Your task to perform on an android device: change keyboard looks Image 0: 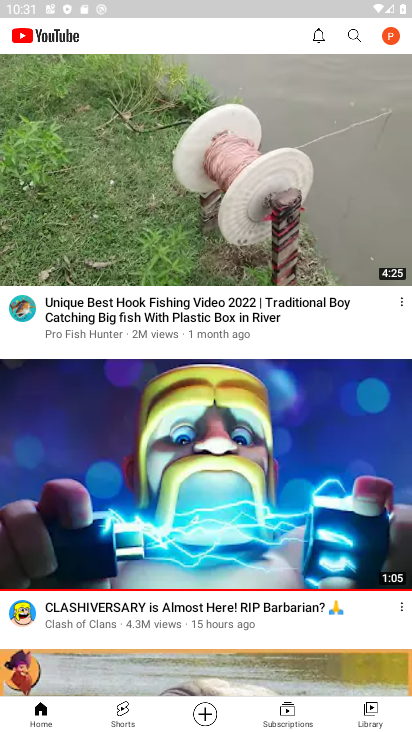
Step 0: press home button
Your task to perform on an android device: change keyboard looks Image 1: 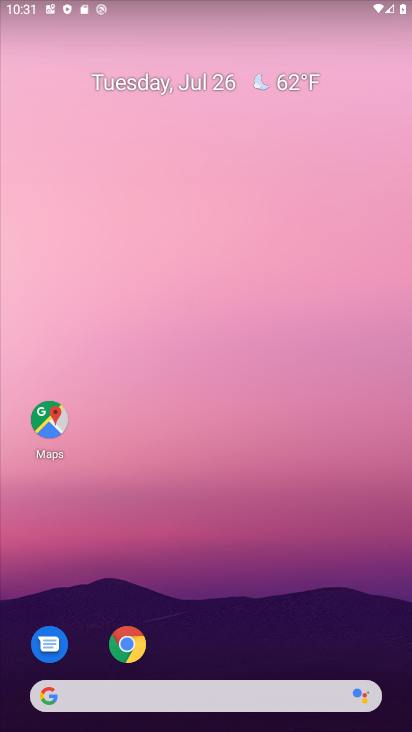
Step 1: drag from (294, 582) to (254, 169)
Your task to perform on an android device: change keyboard looks Image 2: 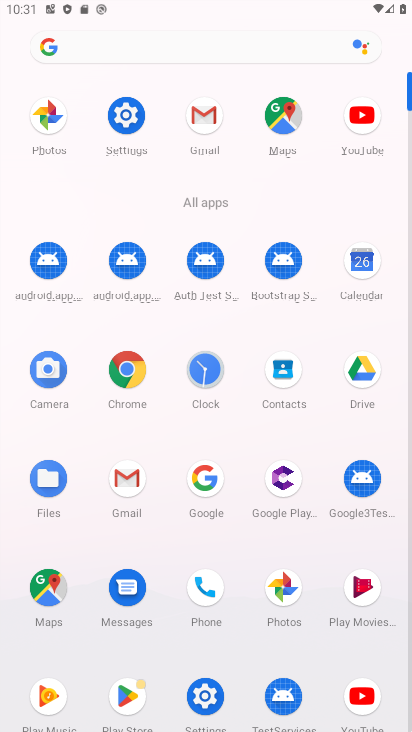
Step 2: click (204, 690)
Your task to perform on an android device: change keyboard looks Image 3: 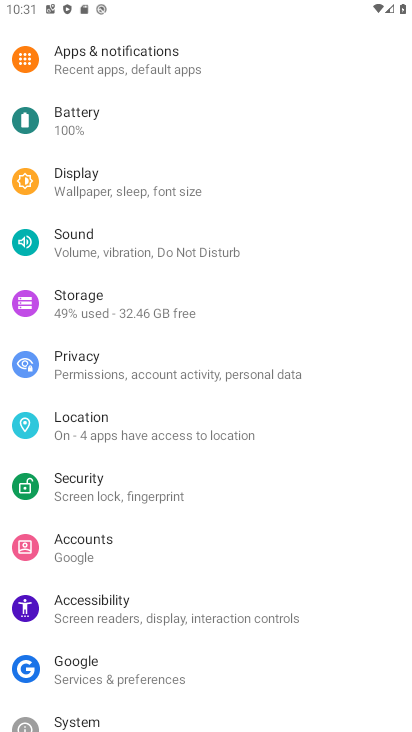
Step 3: drag from (169, 677) to (231, 321)
Your task to perform on an android device: change keyboard looks Image 4: 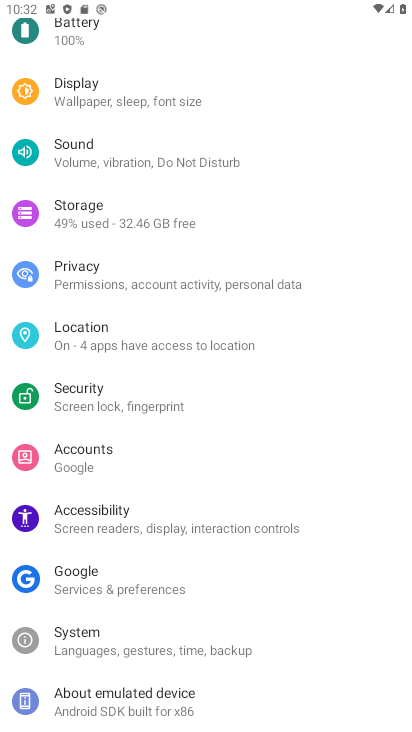
Step 4: click (115, 701)
Your task to perform on an android device: change keyboard looks Image 5: 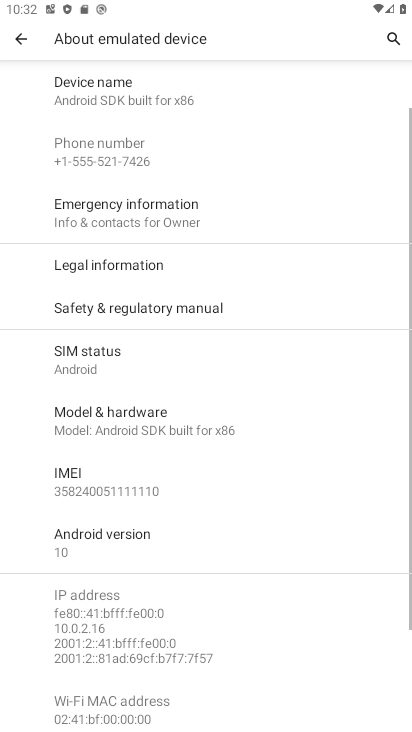
Step 5: click (16, 42)
Your task to perform on an android device: change keyboard looks Image 6: 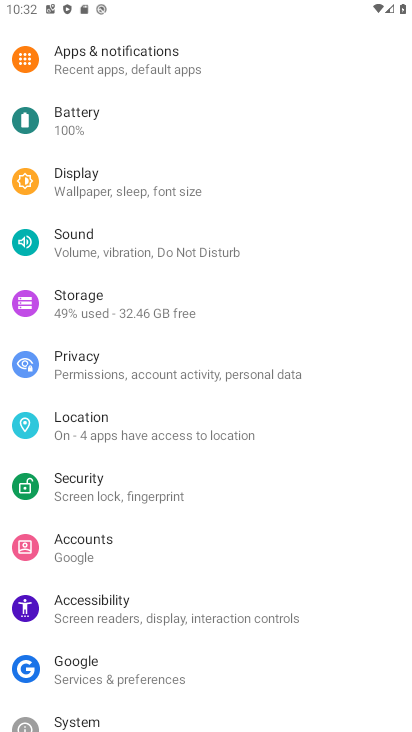
Step 6: click (101, 720)
Your task to perform on an android device: change keyboard looks Image 7: 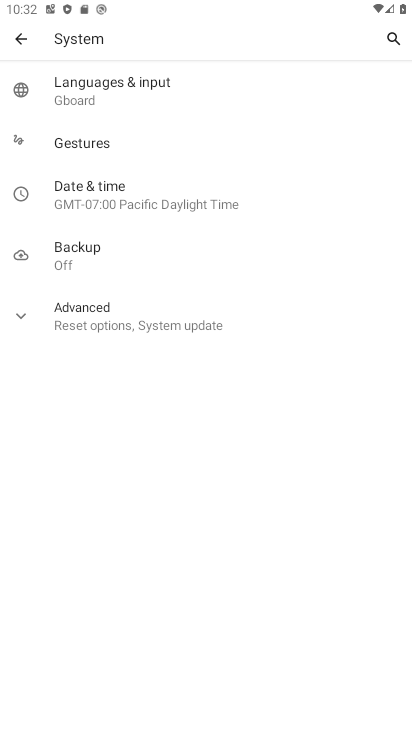
Step 7: click (107, 93)
Your task to perform on an android device: change keyboard looks Image 8: 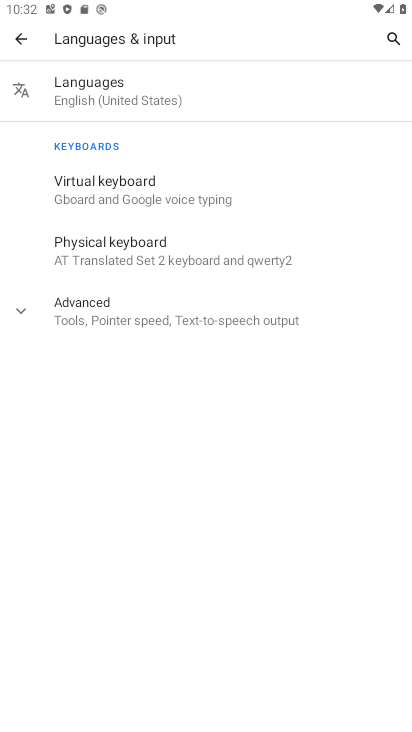
Step 8: click (120, 190)
Your task to perform on an android device: change keyboard looks Image 9: 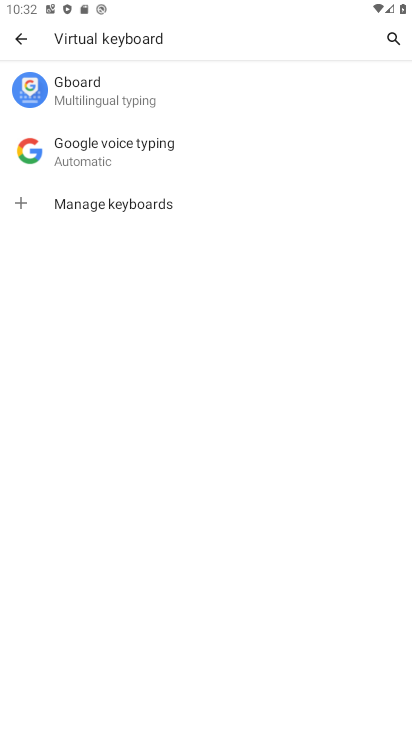
Step 9: click (175, 86)
Your task to perform on an android device: change keyboard looks Image 10: 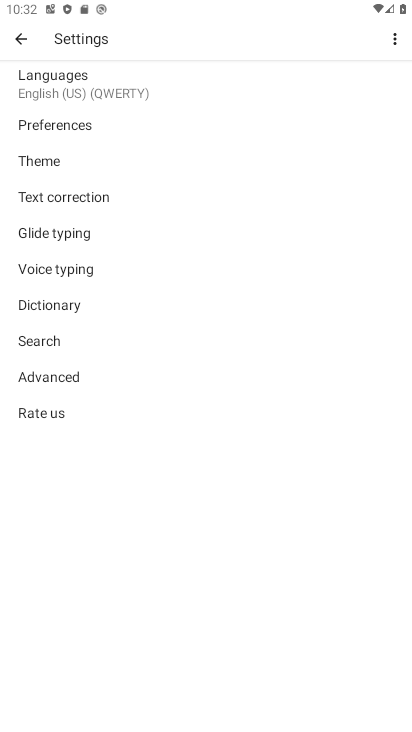
Step 10: click (88, 161)
Your task to perform on an android device: change keyboard looks Image 11: 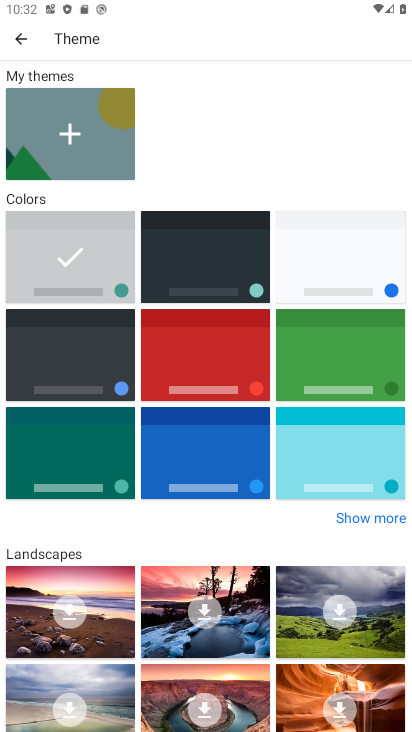
Step 11: click (184, 240)
Your task to perform on an android device: change keyboard looks Image 12: 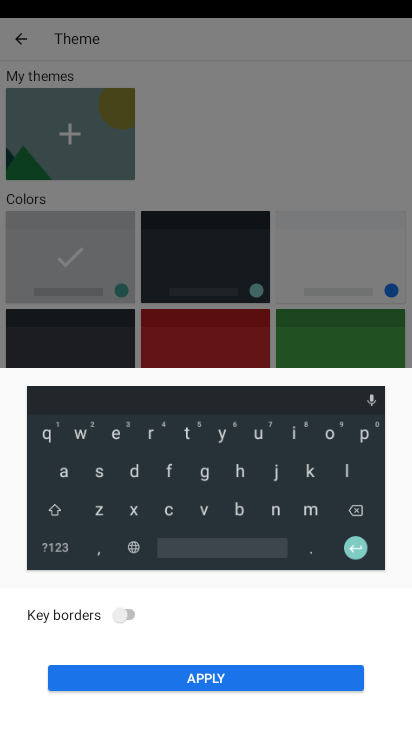
Step 12: click (281, 672)
Your task to perform on an android device: change keyboard looks Image 13: 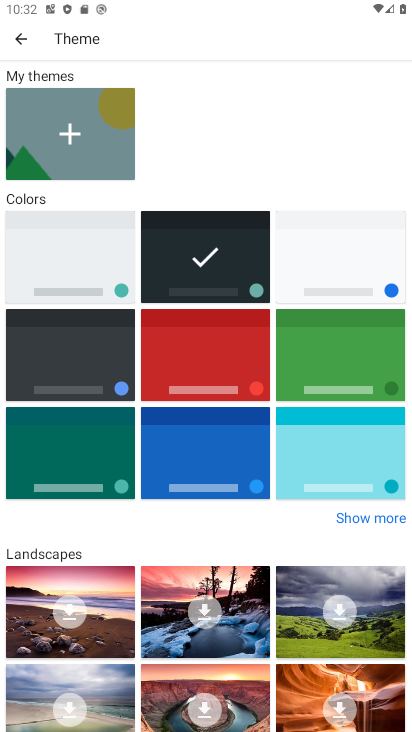
Step 13: task complete